Your task to perform on an android device: Search for seafood restaurants on Google Maps Image 0: 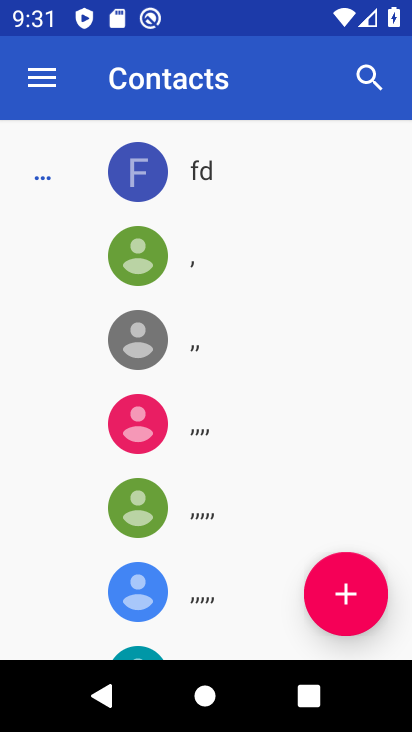
Step 0: press home button
Your task to perform on an android device: Search for seafood restaurants on Google Maps Image 1: 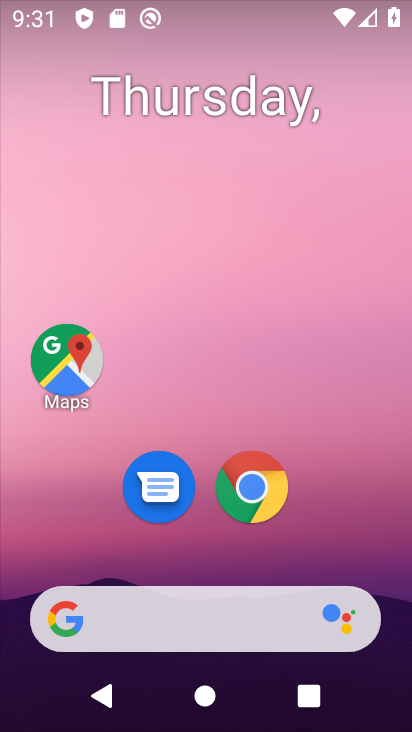
Step 1: click (58, 363)
Your task to perform on an android device: Search for seafood restaurants on Google Maps Image 2: 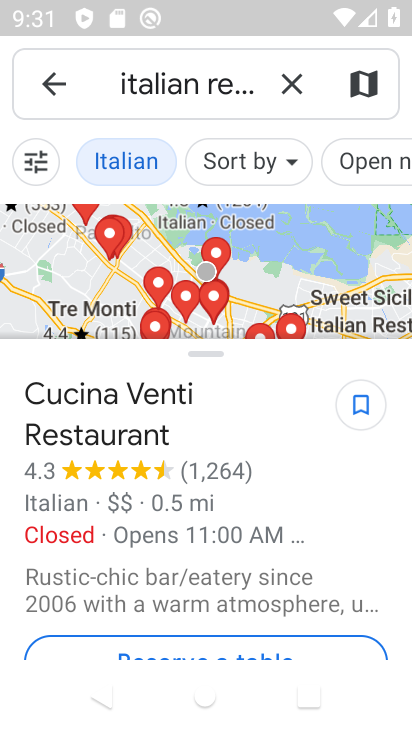
Step 2: click (284, 85)
Your task to perform on an android device: Search for seafood restaurants on Google Maps Image 3: 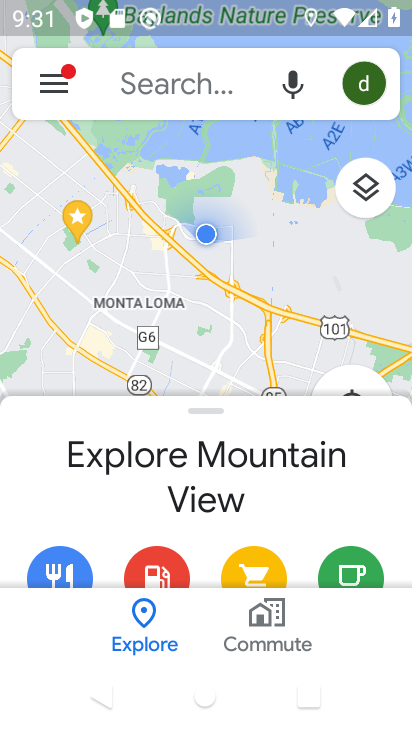
Step 3: click (213, 87)
Your task to perform on an android device: Search for seafood restaurants on Google Maps Image 4: 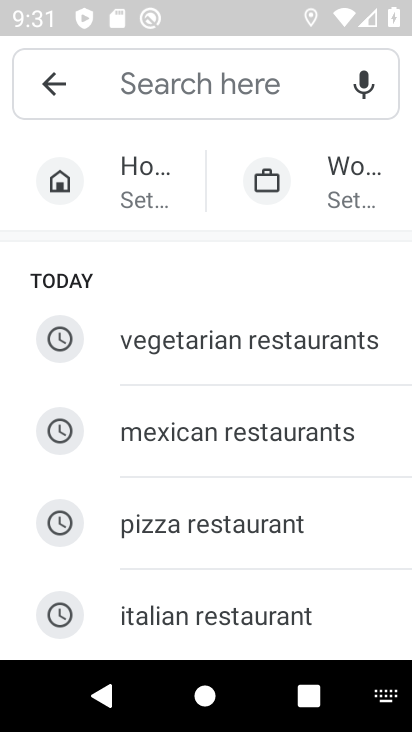
Step 4: drag from (243, 494) to (190, 176)
Your task to perform on an android device: Search for seafood restaurants on Google Maps Image 5: 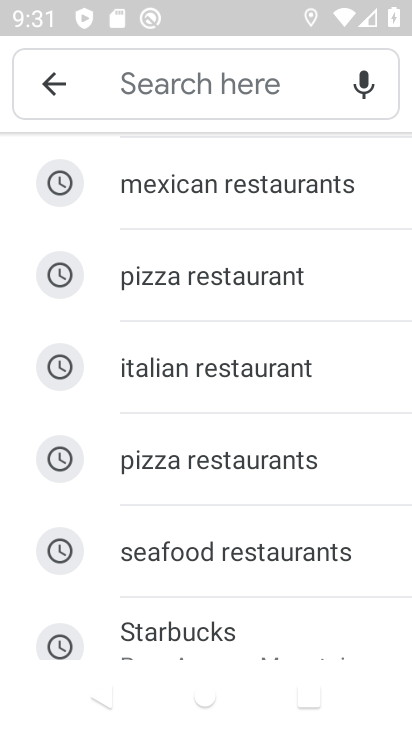
Step 5: click (161, 557)
Your task to perform on an android device: Search for seafood restaurants on Google Maps Image 6: 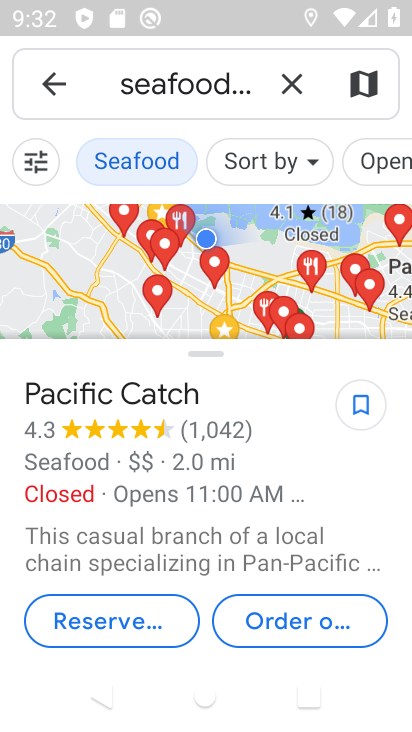
Step 6: task complete